Your task to perform on an android device: Open Chrome and go to settings Image 0: 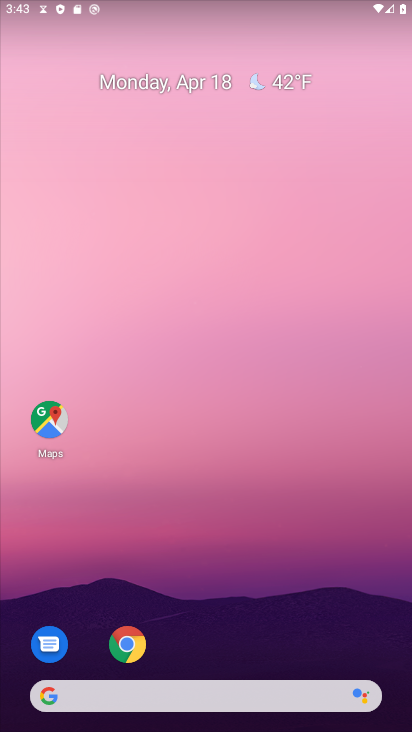
Step 0: drag from (330, 590) to (297, 78)
Your task to perform on an android device: Open Chrome and go to settings Image 1: 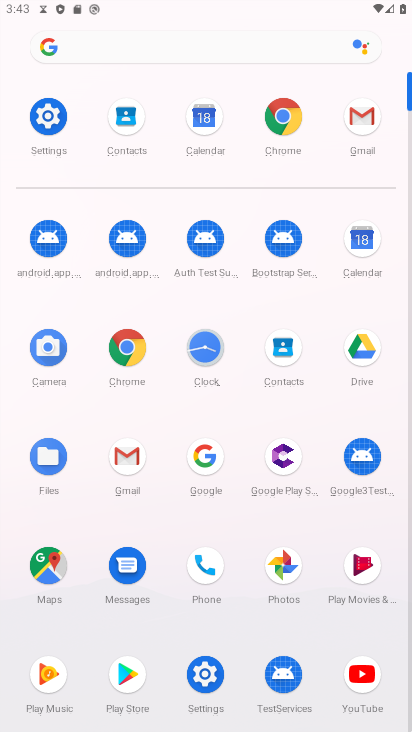
Step 1: click (281, 117)
Your task to perform on an android device: Open Chrome and go to settings Image 2: 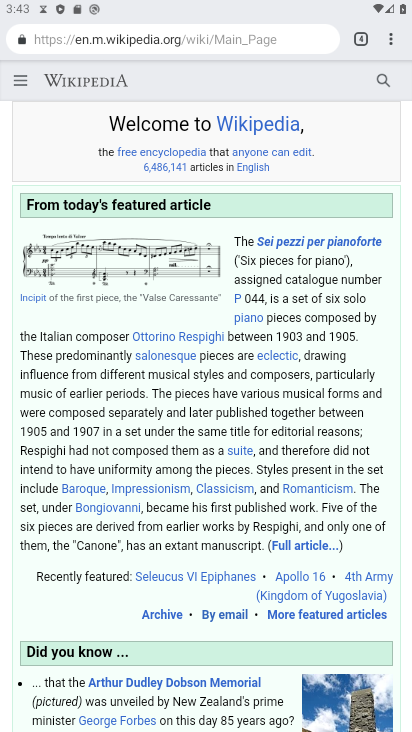
Step 2: click (388, 38)
Your task to perform on an android device: Open Chrome and go to settings Image 3: 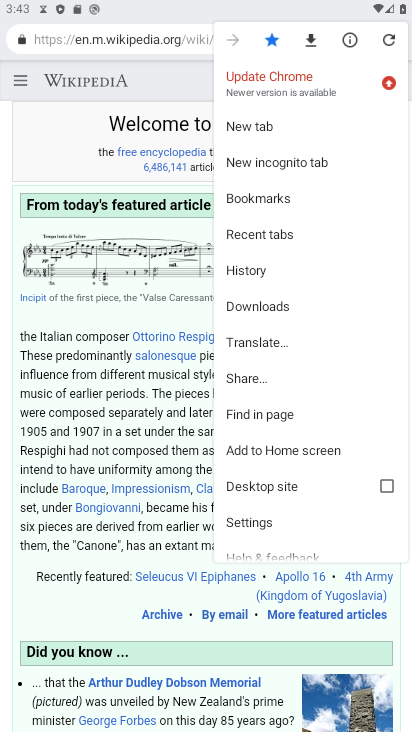
Step 3: click (268, 523)
Your task to perform on an android device: Open Chrome and go to settings Image 4: 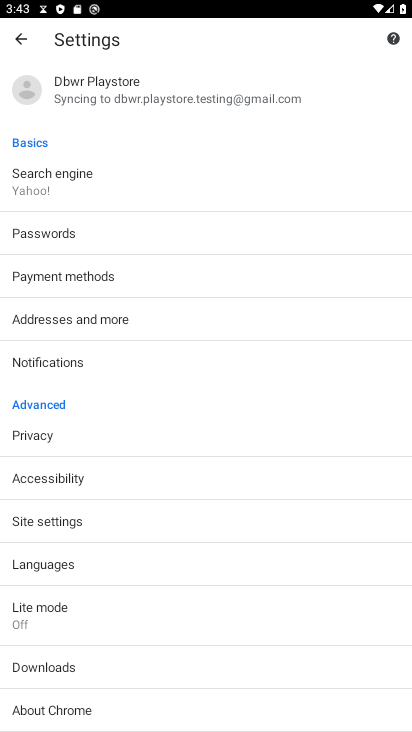
Step 4: task complete